Your task to perform on an android device: Is it going to rain this weekend? Image 0: 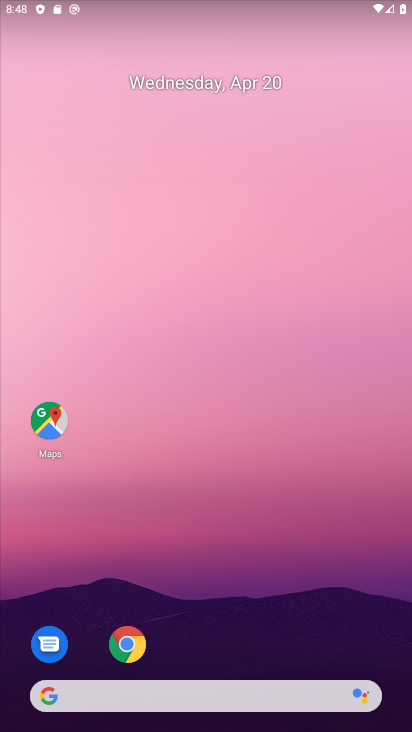
Step 0: drag from (318, 637) to (202, 33)
Your task to perform on an android device: Is it going to rain this weekend? Image 1: 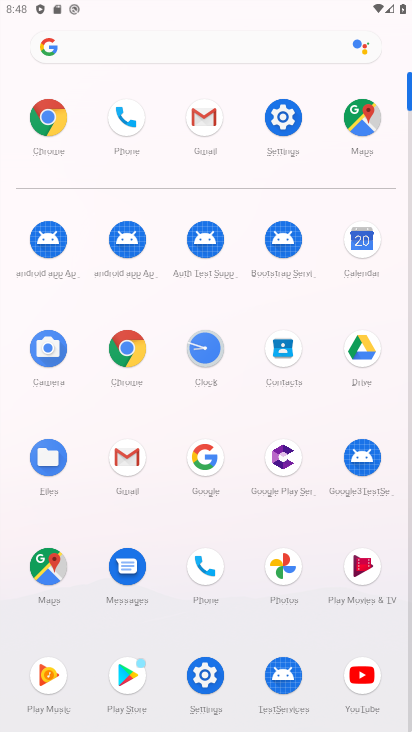
Step 1: task complete